Your task to perform on an android device: Open Maps and search for coffee Image 0: 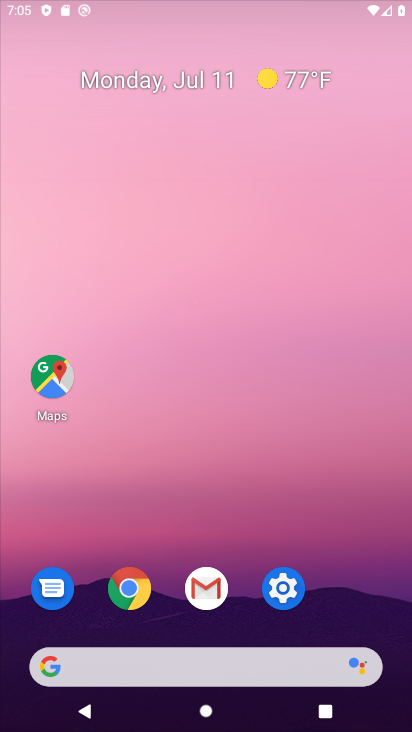
Step 0: click (221, 226)
Your task to perform on an android device: Open Maps and search for coffee Image 1: 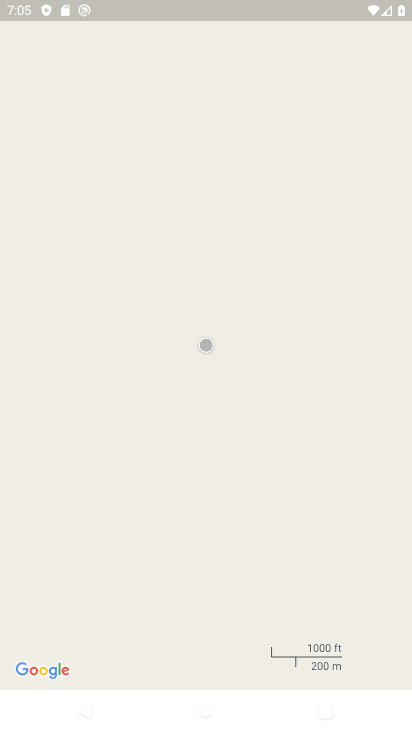
Step 1: press home button
Your task to perform on an android device: Open Maps and search for coffee Image 2: 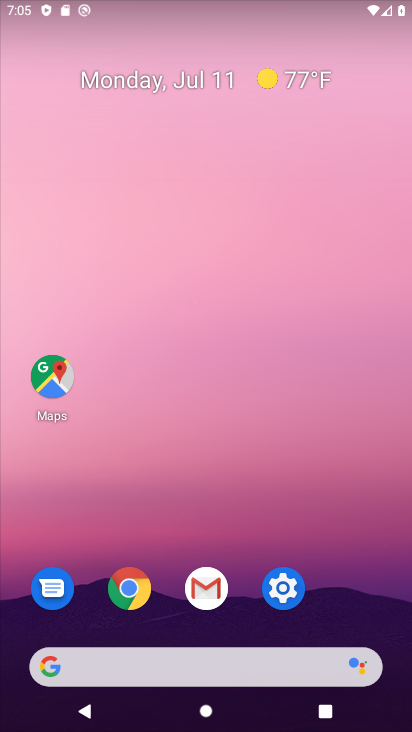
Step 2: drag from (259, 681) to (279, 139)
Your task to perform on an android device: Open Maps and search for coffee Image 3: 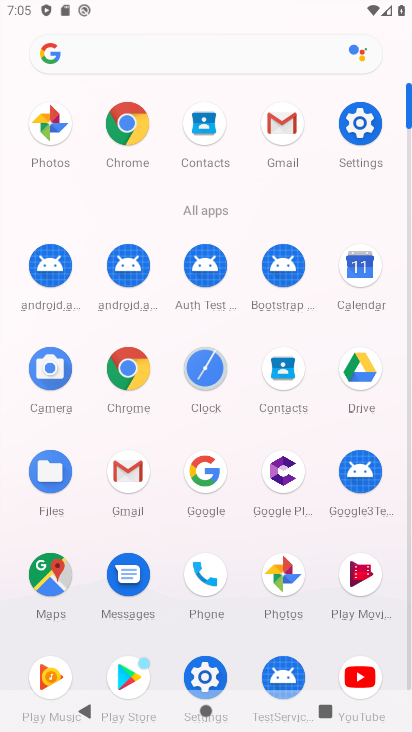
Step 3: click (208, 566)
Your task to perform on an android device: Open Maps and search for coffee Image 4: 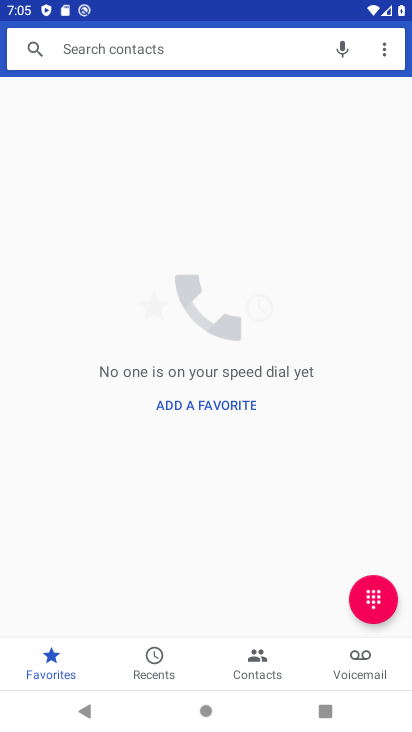
Step 4: click (266, 674)
Your task to perform on an android device: Open Maps and search for coffee Image 5: 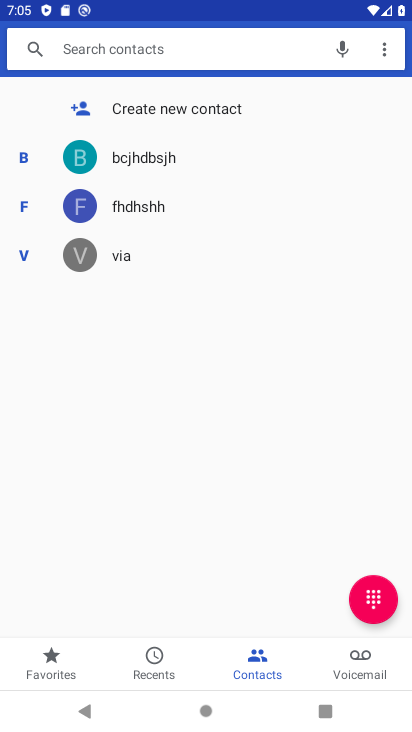
Step 5: click (115, 109)
Your task to perform on an android device: Open Maps and search for coffee Image 6: 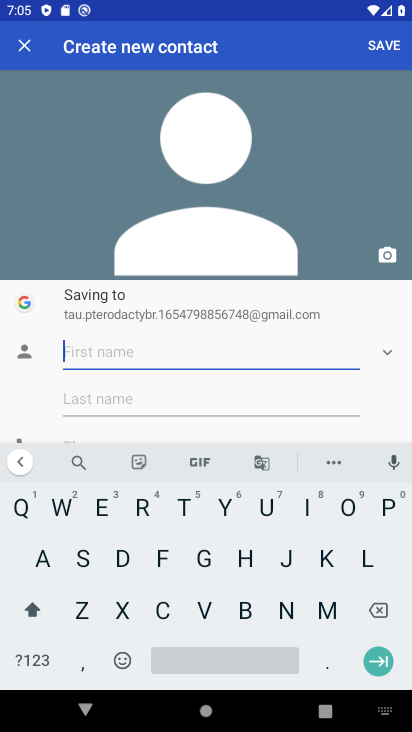
Step 6: click (131, 511)
Your task to perform on an android device: Open Maps and search for coffee Image 7: 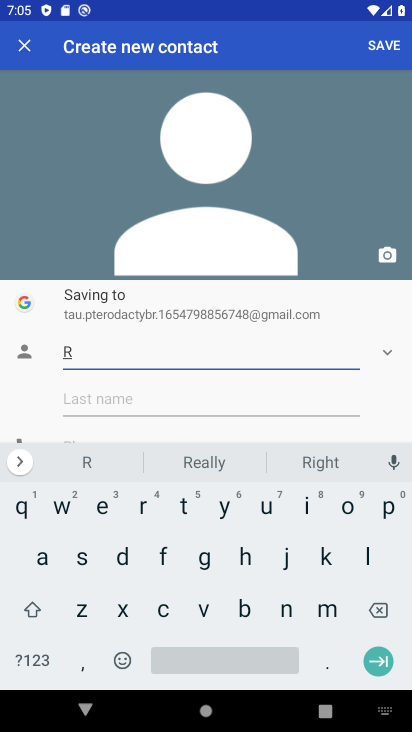
Step 7: click (330, 570)
Your task to perform on an android device: Open Maps and search for coffee Image 8: 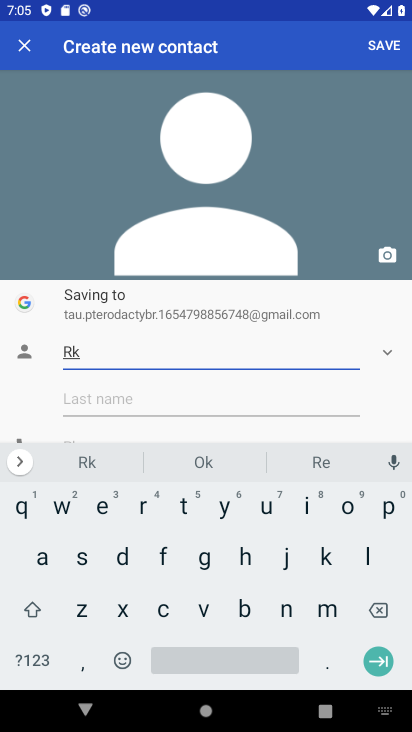
Step 8: click (240, 609)
Your task to perform on an android device: Open Maps and search for coffee Image 9: 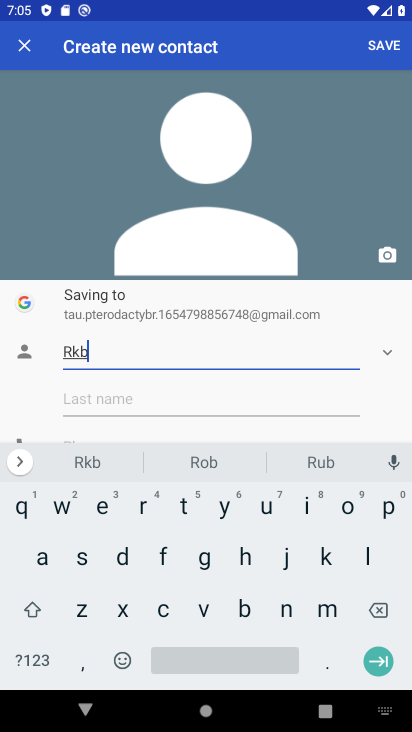
Step 9: click (168, 425)
Your task to perform on an android device: Open Maps and search for coffee Image 10: 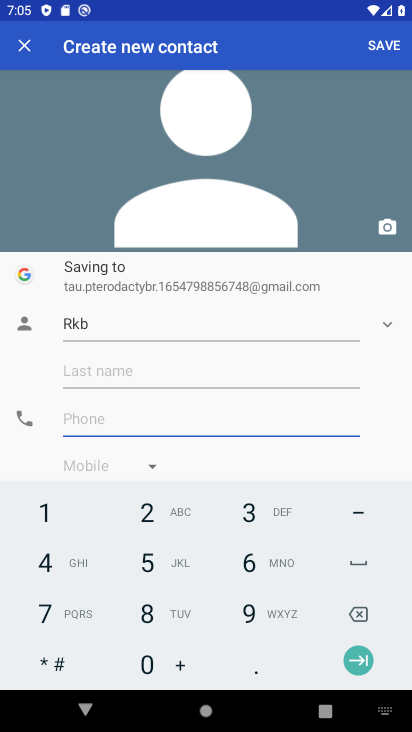
Step 10: click (141, 559)
Your task to perform on an android device: Open Maps and search for coffee Image 11: 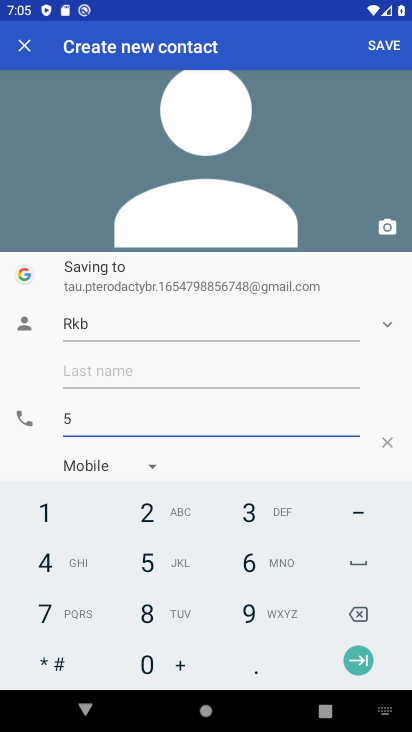
Step 11: click (71, 564)
Your task to perform on an android device: Open Maps and search for coffee Image 12: 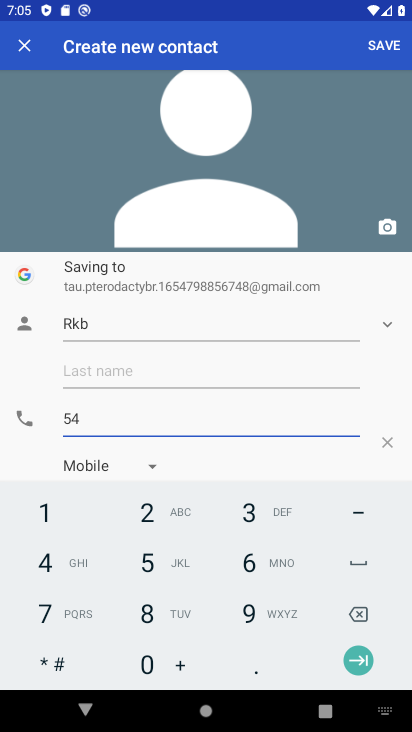
Step 12: click (145, 607)
Your task to perform on an android device: Open Maps and search for coffee Image 13: 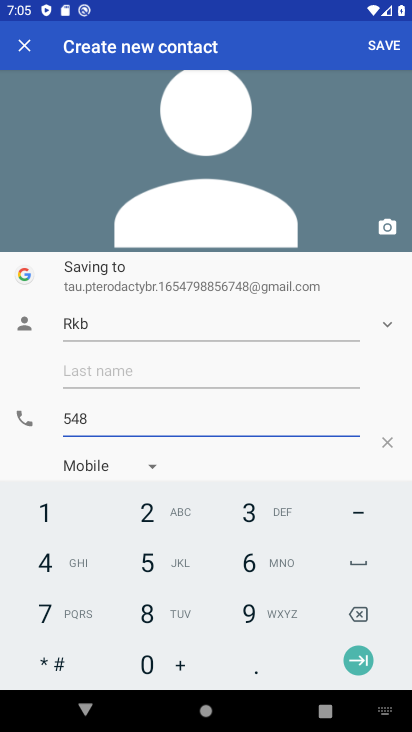
Step 13: click (265, 516)
Your task to perform on an android device: Open Maps and search for coffee Image 14: 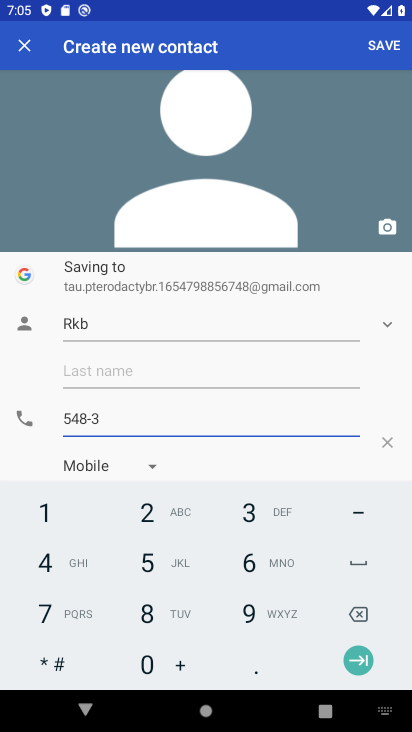
Step 14: click (256, 559)
Your task to perform on an android device: Open Maps and search for coffee Image 15: 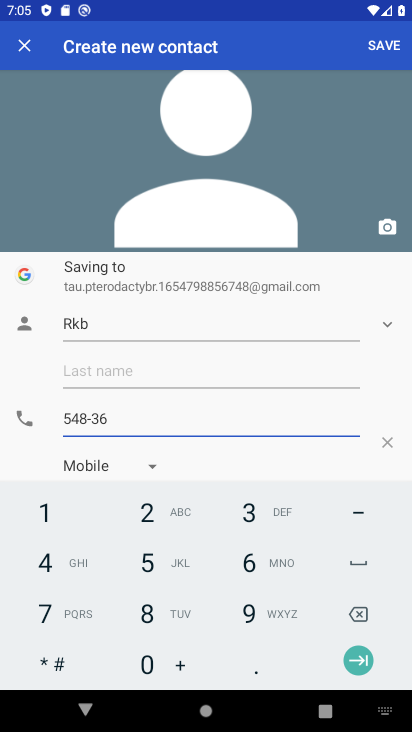
Step 15: click (105, 566)
Your task to perform on an android device: Open Maps and search for coffee Image 16: 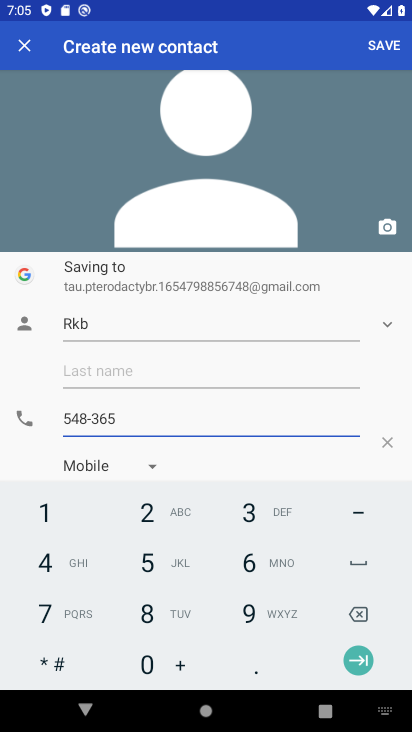
Step 16: click (47, 524)
Your task to perform on an android device: Open Maps and search for coffee Image 17: 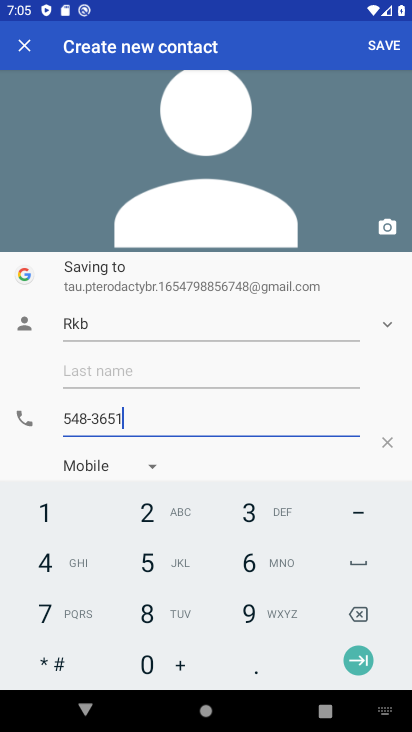
Step 17: click (143, 654)
Your task to perform on an android device: Open Maps and search for coffee Image 18: 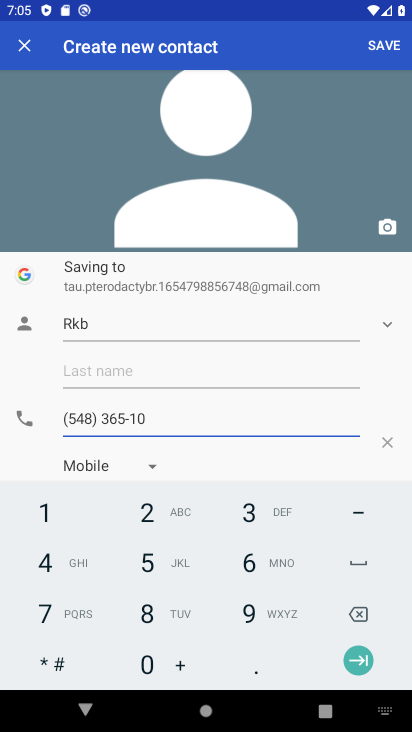
Step 18: click (391, 45)
Your task to perform on an android device: Open Maps and search for coffee Image 19: 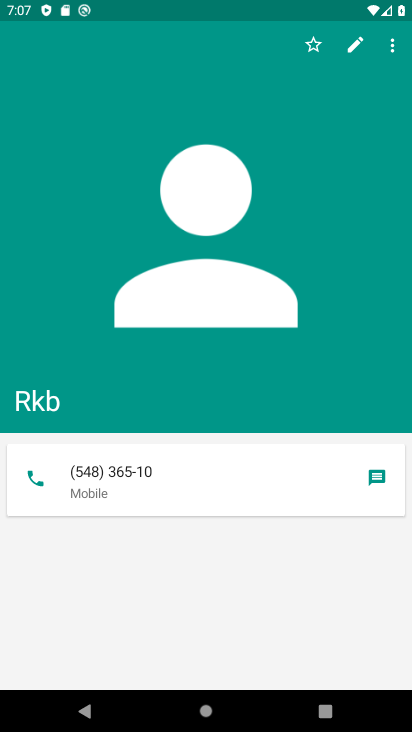
Step 19: task complete